Your task to perform on an android device: Open notification settings Image 0: 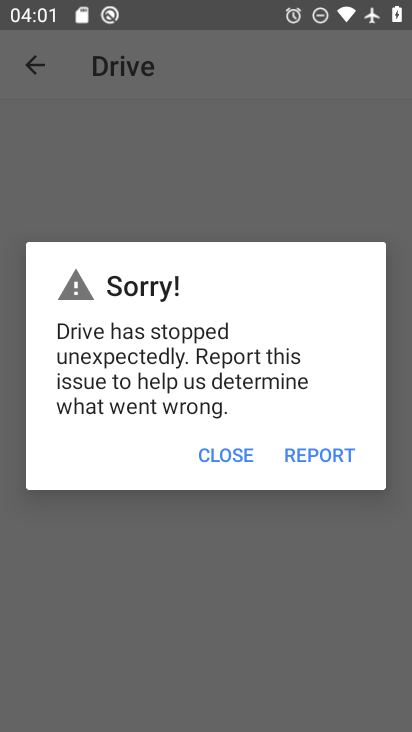
Step 0: press home button
Your task to perform on an android device: Open notification settings Image 1: 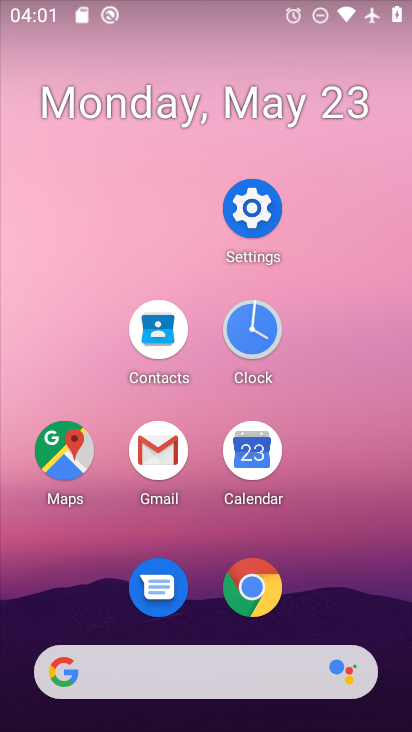
Step 1: click (242, 245)
Your task to perform on an android device: Open notification settings Image 2: 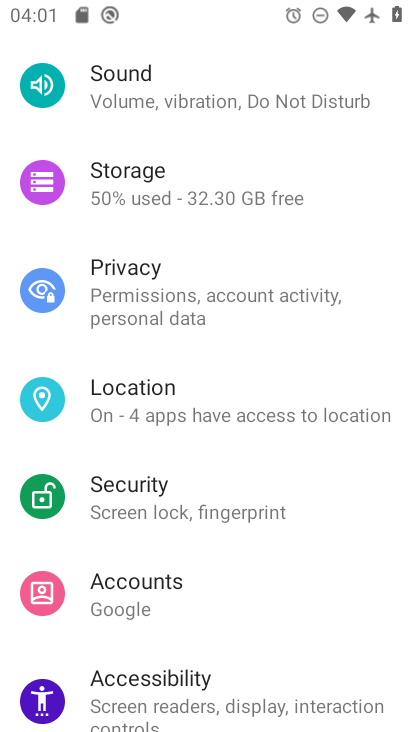
Step 2: drag from (191, 391) to (189, 686)
Your task to perform on an android device: Open notification settings Image 3: 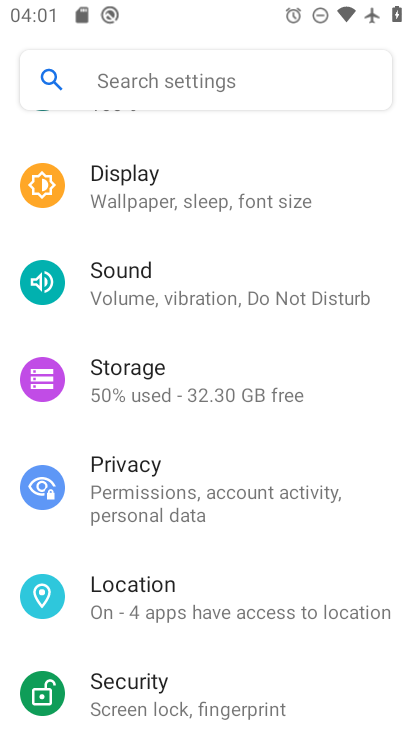
Step 3: drag from (219, 210) to (221, 596)
Your task to perform on an android device: Open notification settings Image 4: 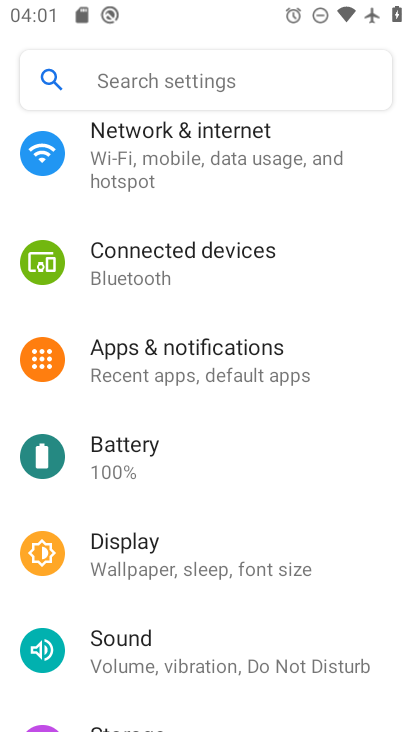
Step 4: click (203, 352)
Your task to perform on an android device: Open notification settings Image 5: 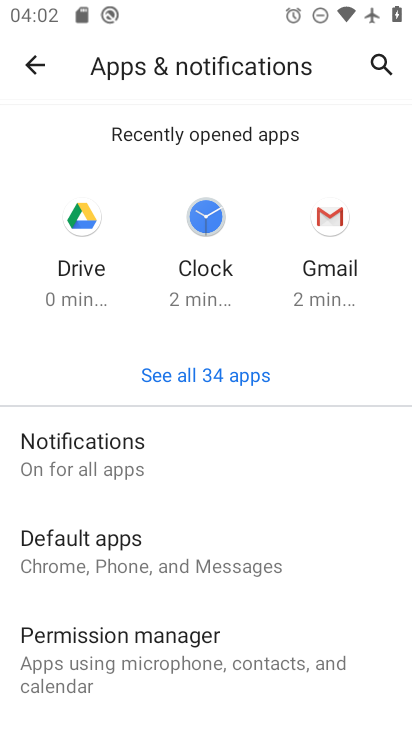
Step 5: task complete